Your task to perform on an android device: turn on wifi Image 0: 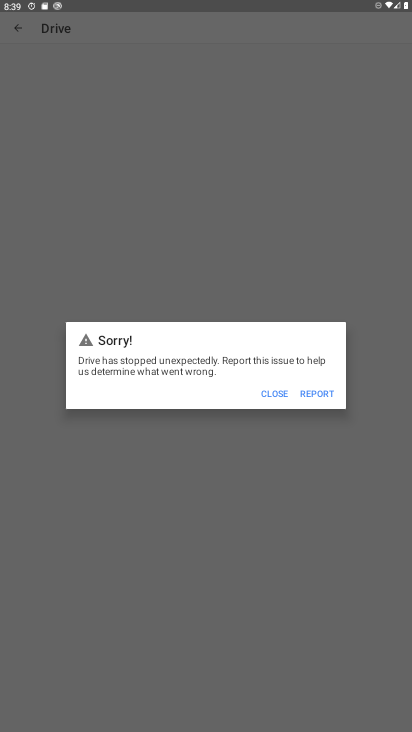
Step 0: press home button
Your task to perform on an android device: turn on wifi Image 1: 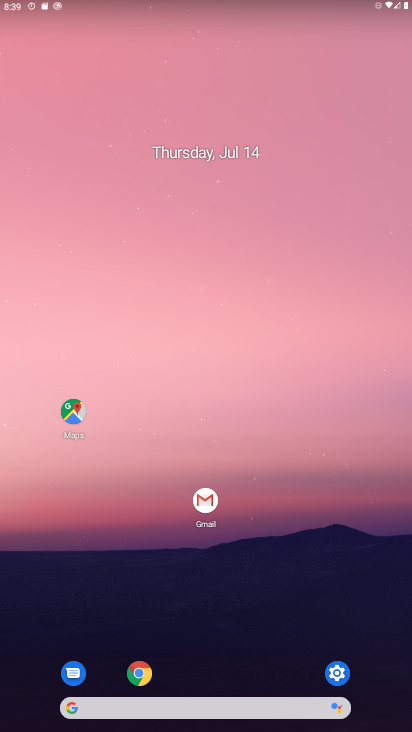
Step 1: click (342, 670)
Your task to perform on an android device: turn on wifi Image 2: 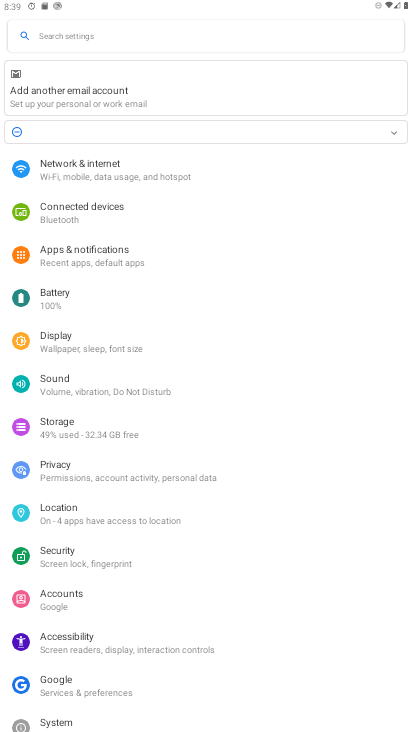
Step 2: click (84, 169)
Your task to perform on an android device: turn on wifi Image 3: 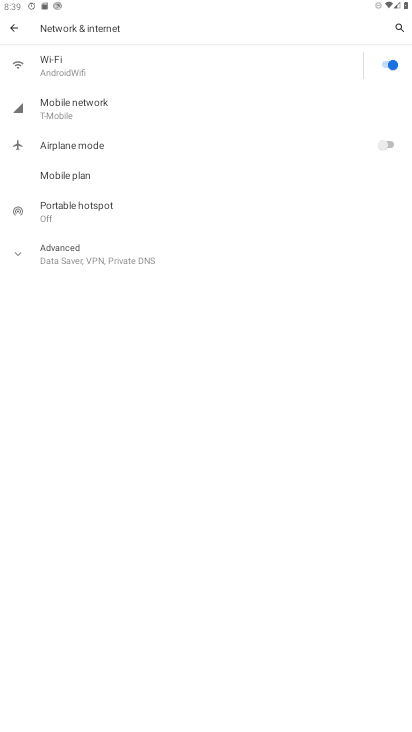
Step 3: click (90, 59)
Your task to perform on an android device: turn on wifi Image 4: 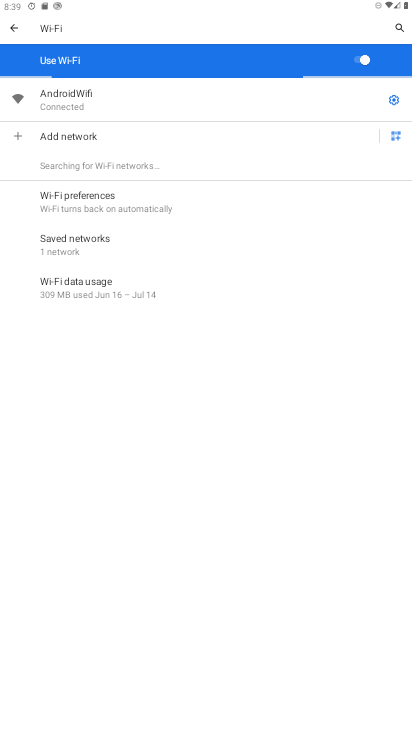
Step 4: click (359, 61)
Your task to perform on an android device: turn on wifi Image 5: 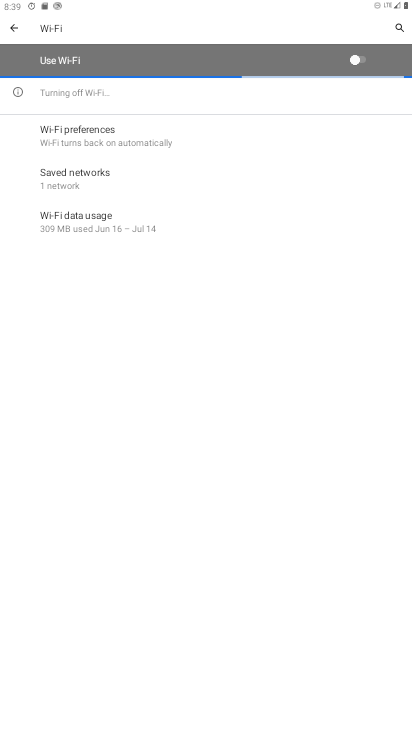
Step 5: click (359, 61)
Your task to perform on an android device: turn on wifi Image 6: 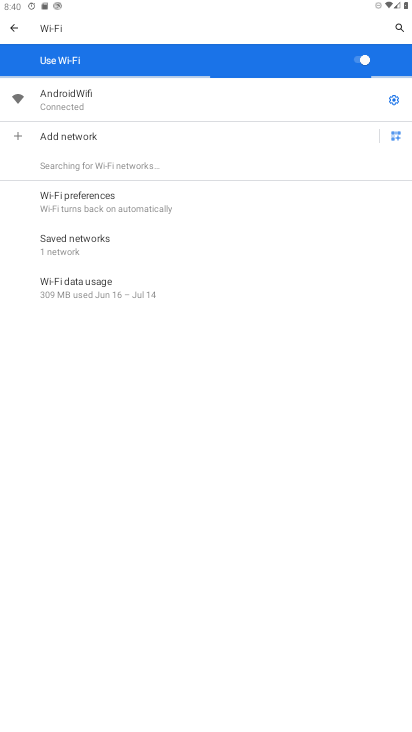
Step 6: task complete